Your task to perform on an android device: toggle show notifications on the lock screen Image 0: 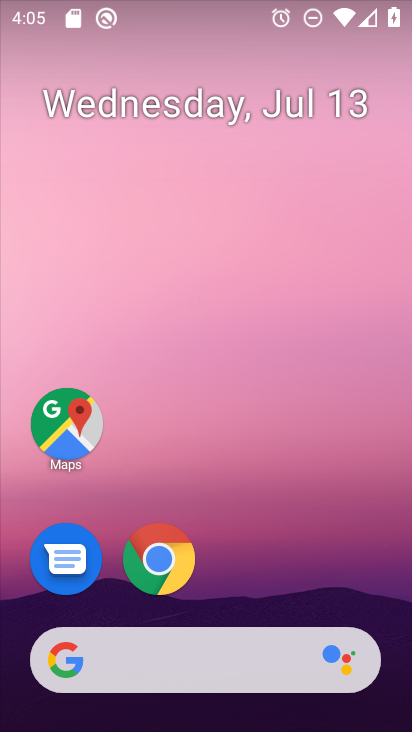
Step 0: drag from (338, 581) to (335, 158)
Your task to perform on an android device: toggle show notifications on the lock screen Image 1: 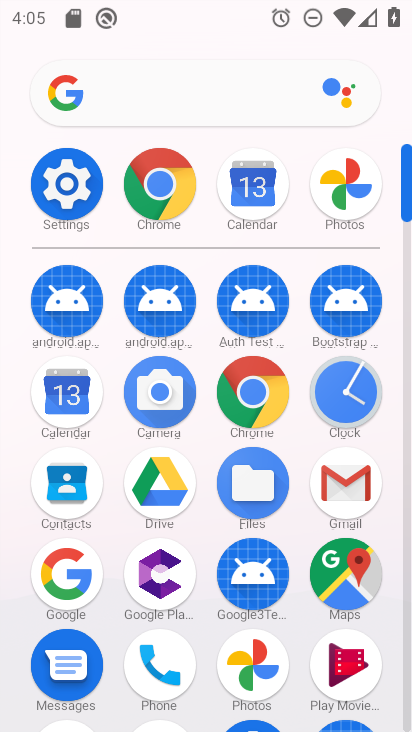
Step 1: click (74, 199)
Your task to perform on an android device: toggle show notifications on the lock screen Image 2: 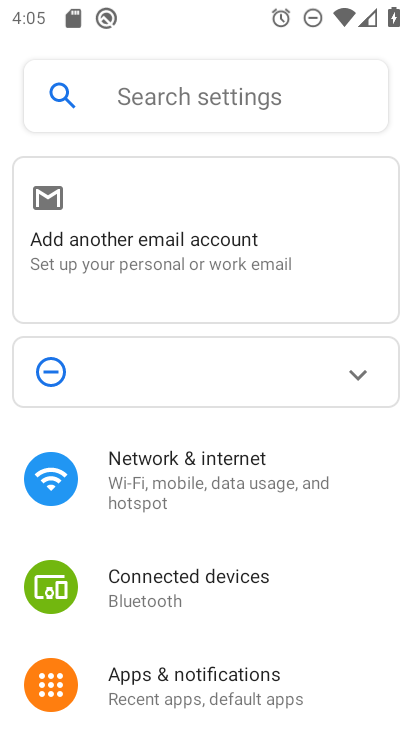
Step 2: drag from (363, 568) to (356, 457)
Your task to perform on an android device: toggle show notifications on the lock screen Image 3: 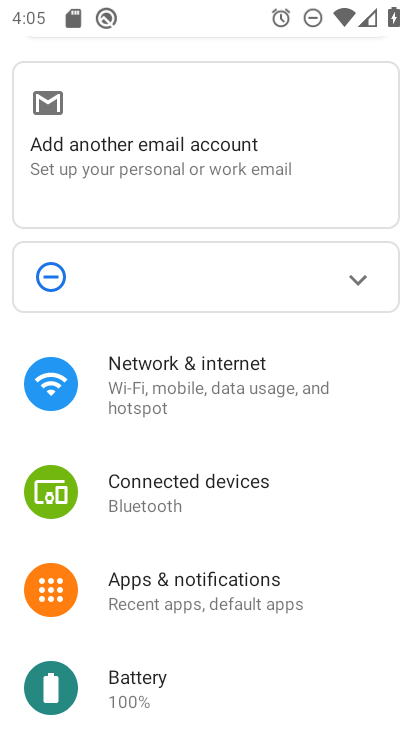
Step 3: drag from (354, 587) to (346, 429)
Your task to perform on an android device: toggle show notifications on the lock screen Image 4: 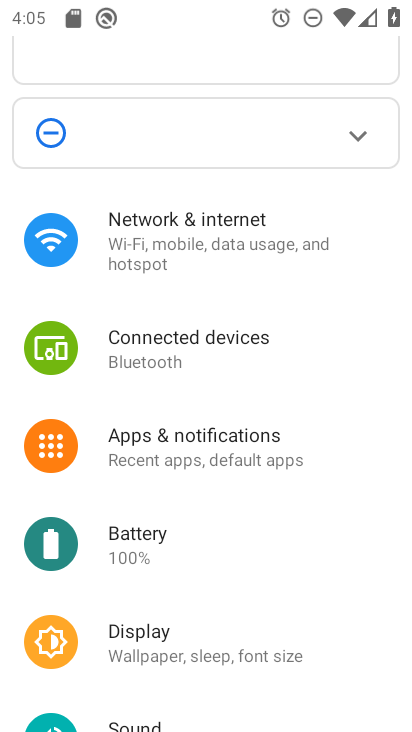
Step 4: drag from (341, 579) to (341, 440)
Your task to perform on an android device: toggle show notifications on the lock screen Image 5: 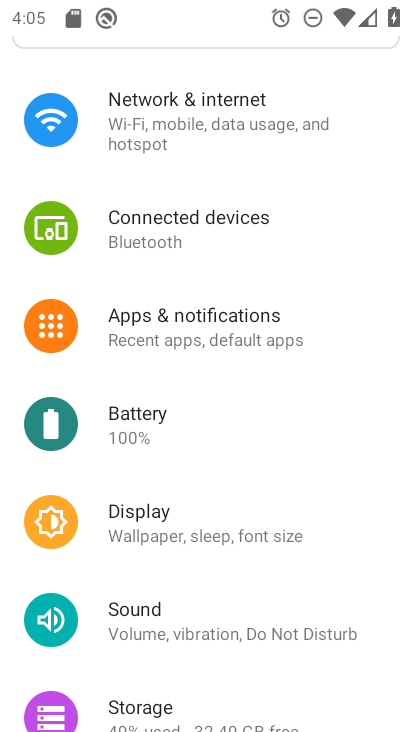
Step 5: drag from (332, 581) to (339, 439)
Your task to perform on an android device: toggle show notifications on the lock screen Image 6: 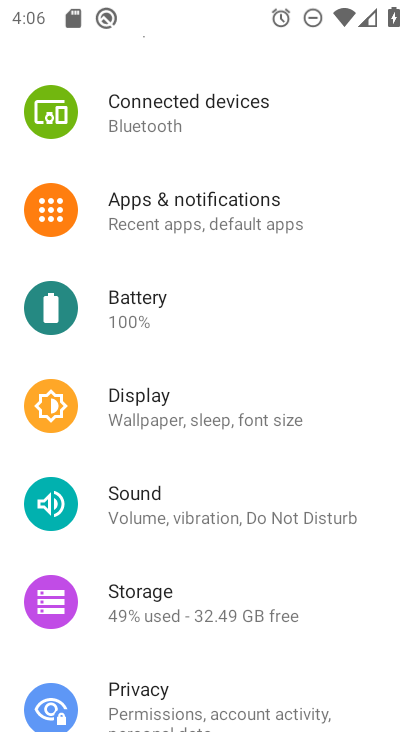
Step 6: drag from (341, 616) to (341, 454)
Your task to perform on an android device: toggle show notifications on the lock screen Image 7: 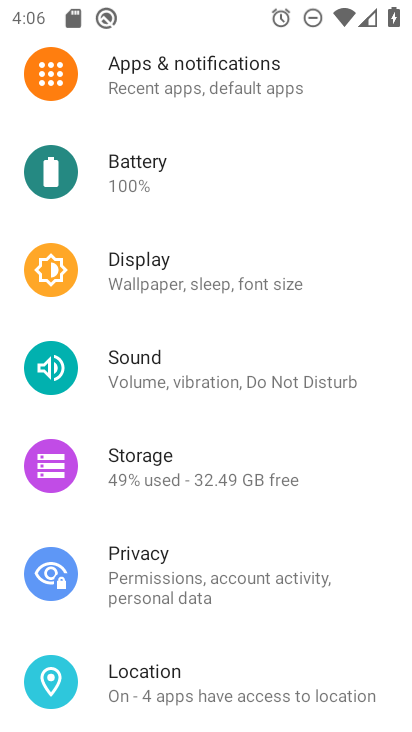
Step 7: drag from (363, 628) to (363, 522)
Your task to perform on an android device: toggle show notifications on the lock screen Image 8: 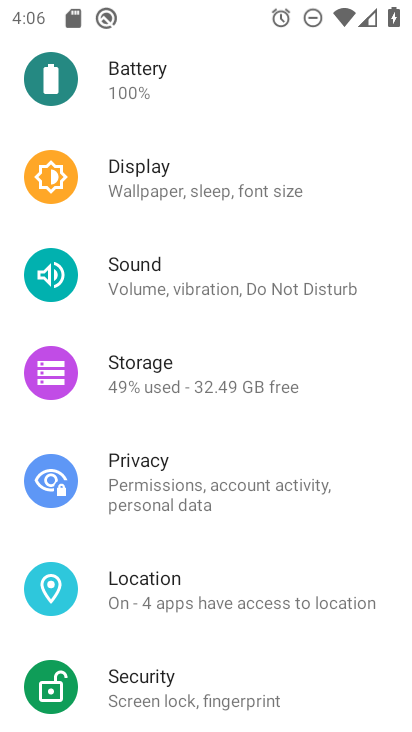
Step 8: drag from (338, 538) to (351, 438)
Your task to perform on an android device: toggle show notifications on the lock screen Image 9: 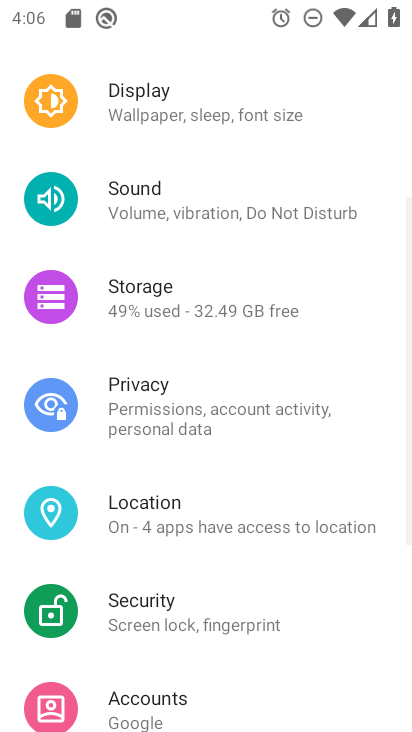
Step 9: drag from (359, 546) to (358, 410)
Your task to perform on an android device: toggle show notifications on the lock screen Image 10: 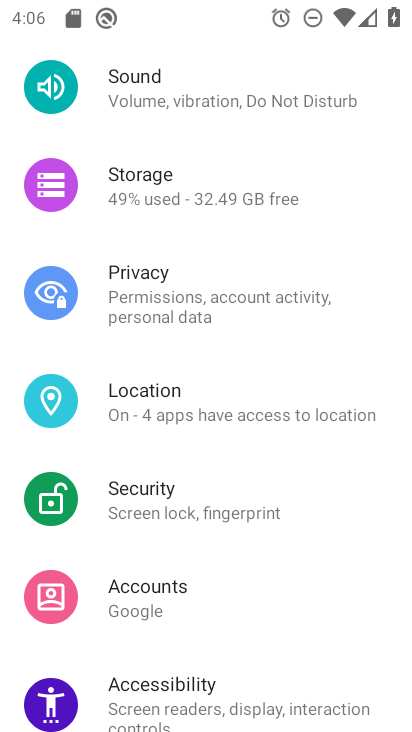
Step 10: drag from (350, 532) to (350, 407)
Your task to perform on an android device: toggle show notifications on the lock screen Image 11: 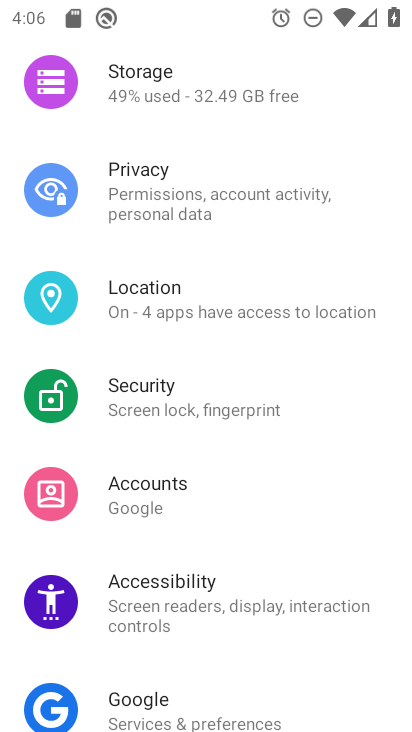
Step 11: drag from (349, 523) to (344, 332)
Your task to perform on an android device: toggle show notifications on the lock screen Image 12: 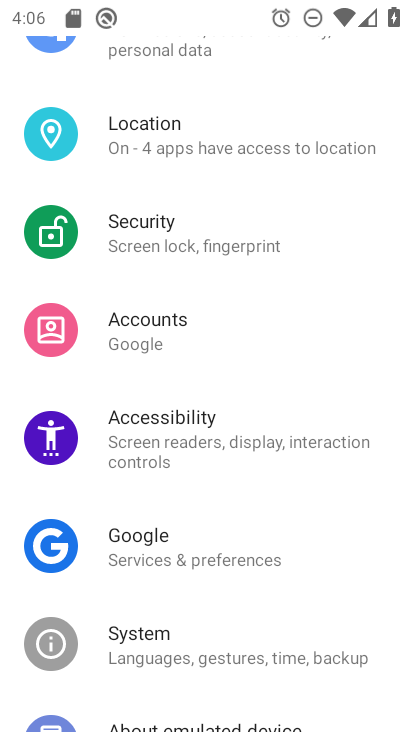
Step 12: drag from (334, 238) to (336, 324)
Your task to perform on an android device: toggle show notifications on the lock screen Image 13: 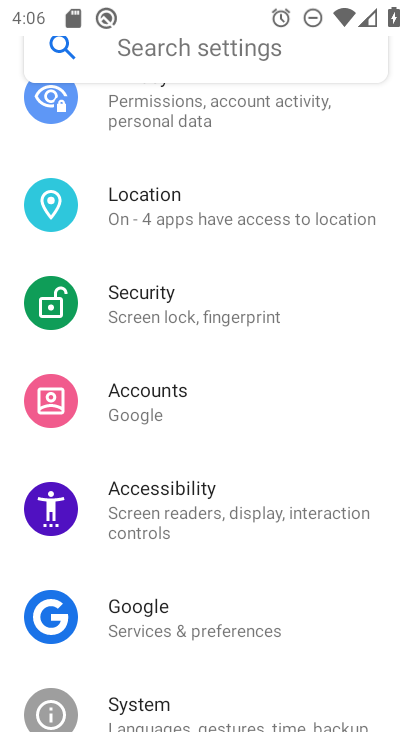
Step 13: drag from (340, 266) to (340, 354)
Your task to perform on an android device: toggle show notifications on the lock screen Image 14: 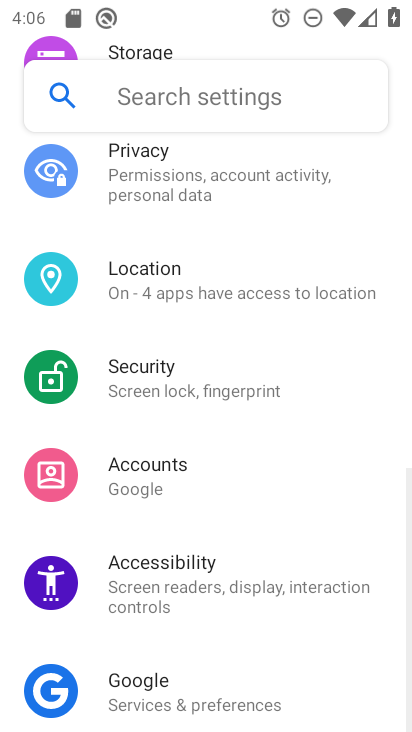
Step 14: drag from (329, 261) to (331, 355)
Your task to perform on an android device: toggle show notifications on the lock screen Image 15: 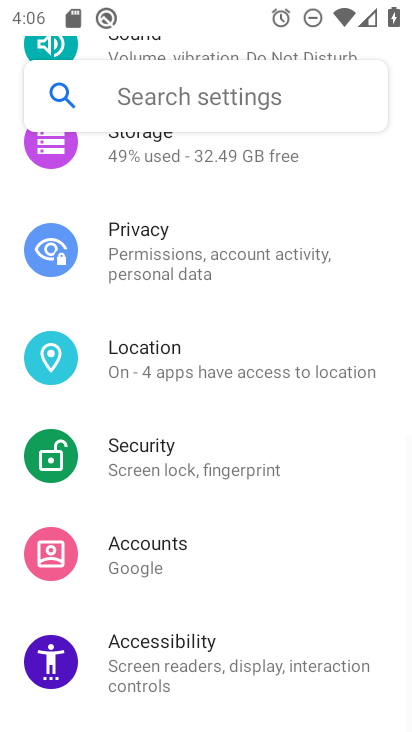
Step 15: drag from (346, 256) to (347, 362)
Your task to perform on an android device: toggle show notifications on the lock screen Image 16: 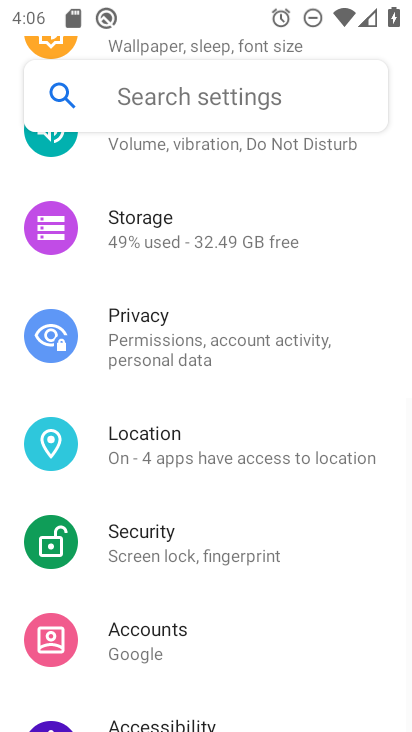
Step 16: drag from (349, 283) to (349, 376)
Your task to perform on an android device: toggle show notifications on the lock screen Image 17: 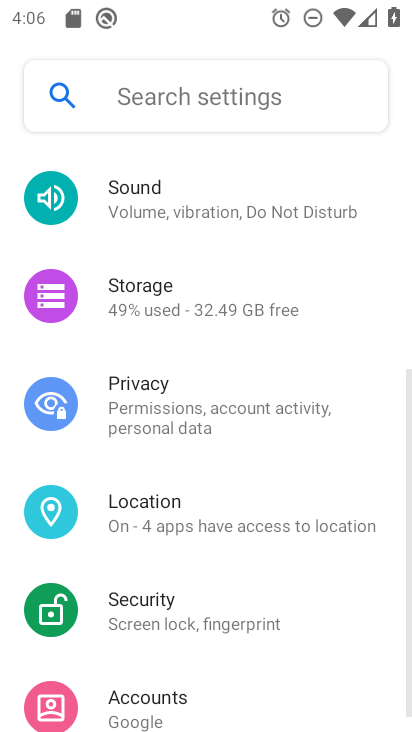
Step 17: drag from (349, 305) to (349, 400)
Your task to perform on an android device: toggle show notifications on the lock screen Image 18: 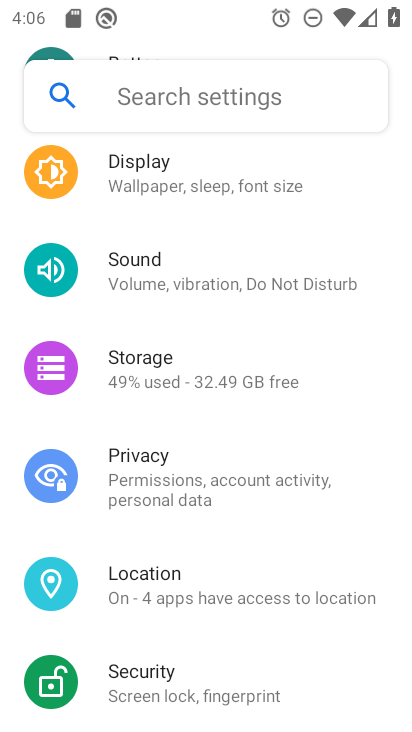
Step 18: drag from (351, 321) to (352, 398)
Your task to perform on an android device: toggle show notifications on the lock screen Image 19: 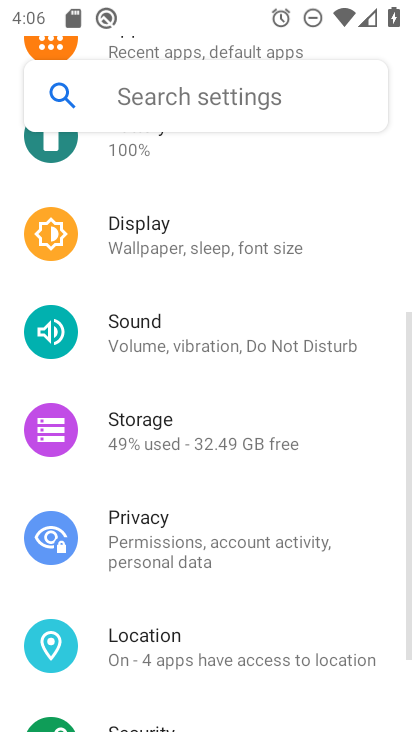
Step 19: drag from (358, 301) to (358, 424)
Your task to perform on an android device: toggle show notifications on the lock screen Image 20: 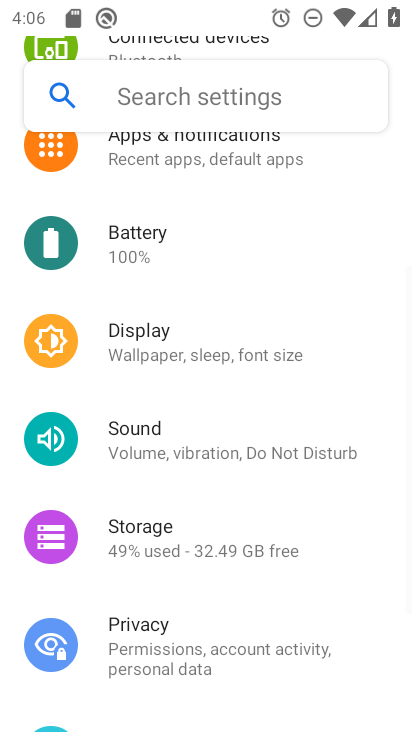
Step 20: drag from (346, 302) to (356, 416)
Your task to perform on an android device: toggle show notifications on the lock screen Image 21: 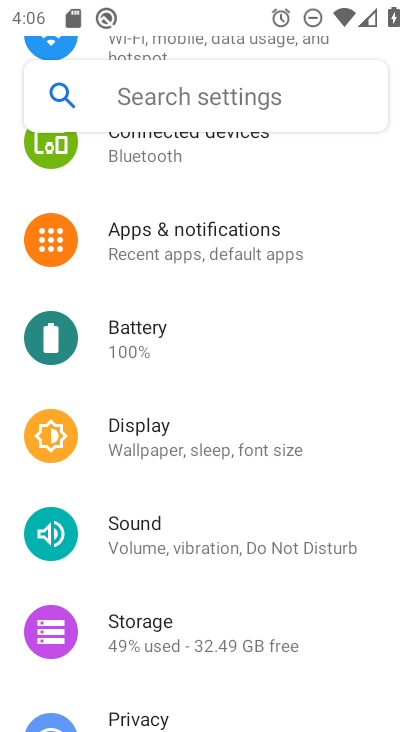
Step 21: click (296, 268)
Your task to perform on an android device: toggle show notifications on the lock screen Image 22: 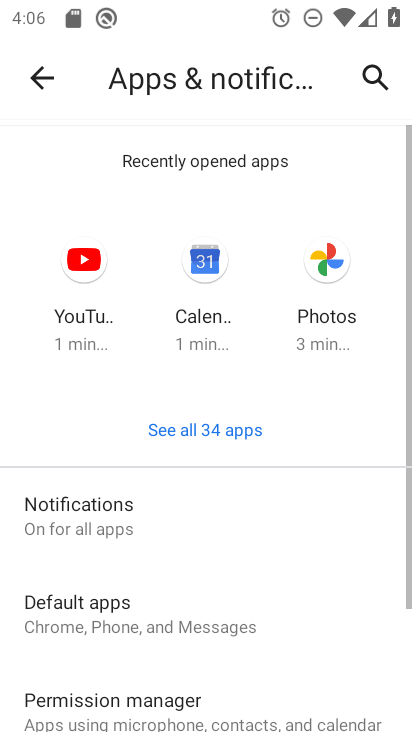
Step 22: drag from (292, 433) to (289, 250)
Your task to perform on an android device: toggle show notifications on the lock screen Image 23: 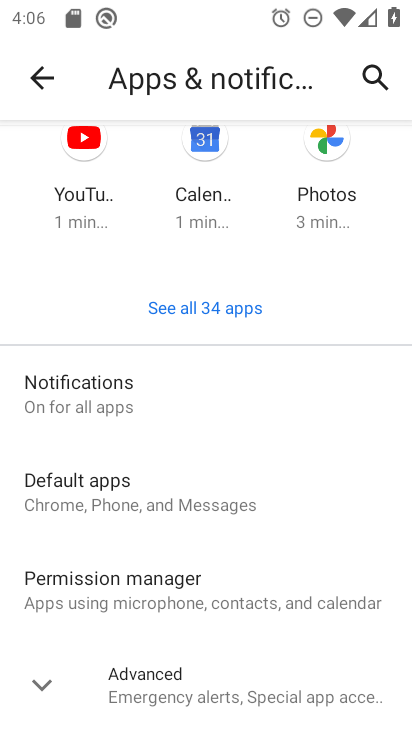
Step 23: click (268, 398)
Your task to perform on an android device: toggle show notifications on the lock screen Image 24: 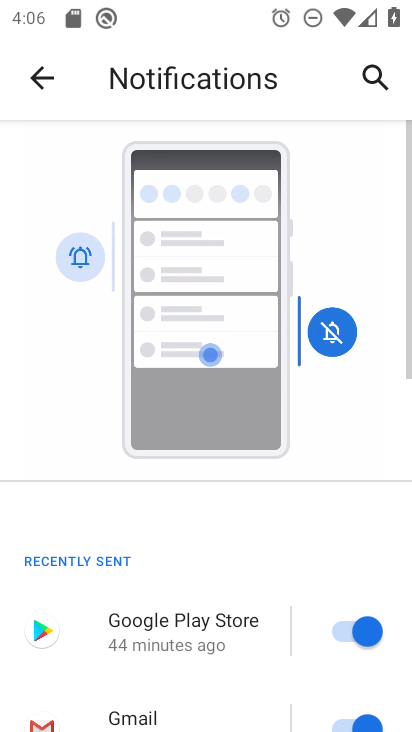
Step 24: drag from (271, 476) to (277, 294)
Your task to perform on an android device: toggle show notifications on the lock screen Image 25: 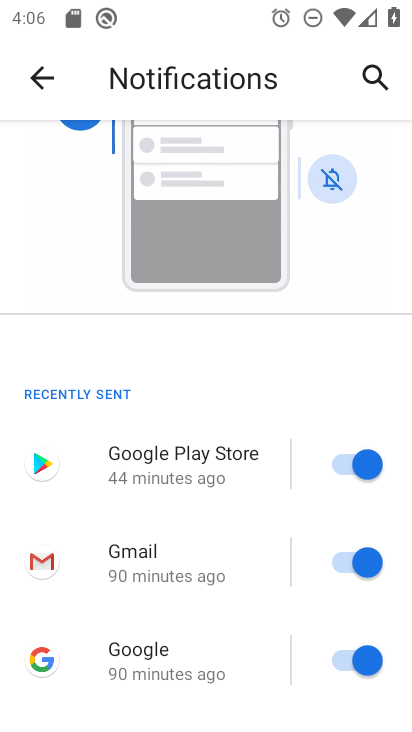
Step 25: drag from (262, 507) to (262, 391)
Your task to perform on an android device: toggle show notifications on the lock screen Image 26: 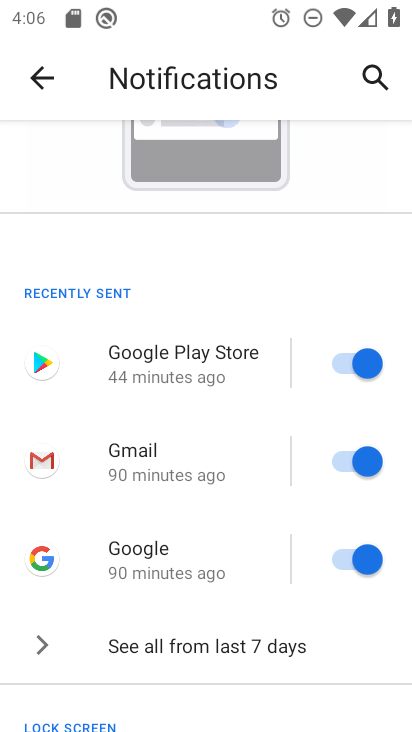
Step 26: drag from (260, 501) to (243, 333)
Your task to perform on an android device: toggle show notifications on the lock screen Image 27: 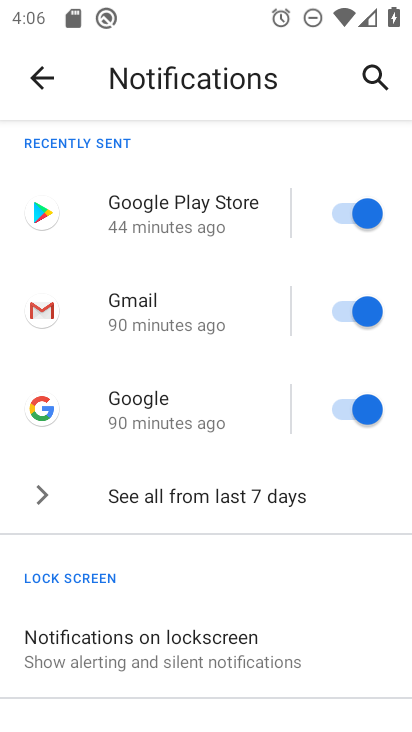
Step 27: drag from (248, 535) to (248, 352)
Your task to perform on an android device: toggle show notifications on the lock screen Image 28: 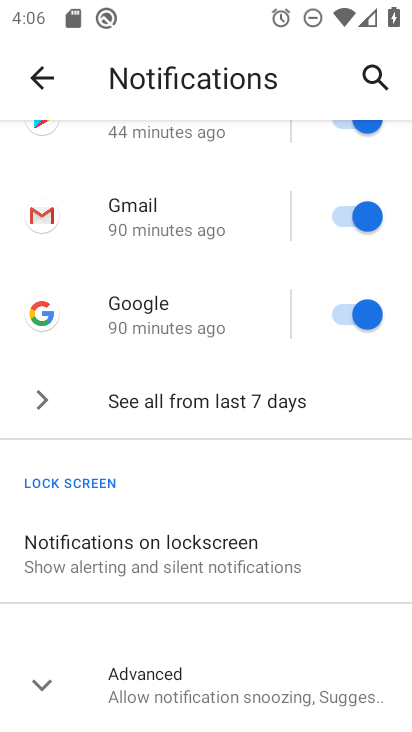
Step 28: click (254, 545)
Your task to perform on an android device: toggle show notifications on the lock screen Image 29: 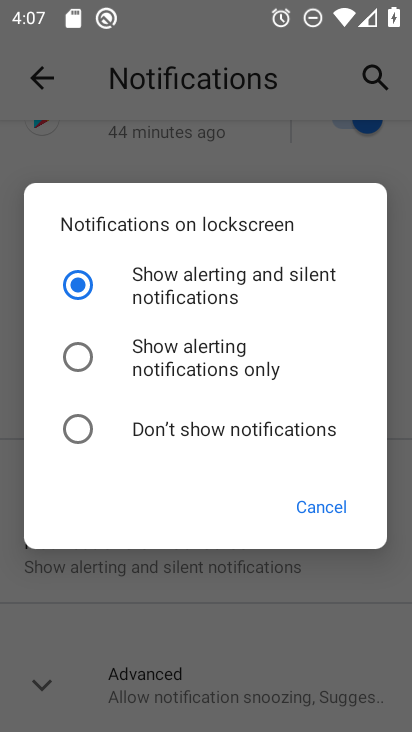
Step 29: click (174, 367)
Your task to perform on an android device: toggle show notifications on the lock screen Image 30: 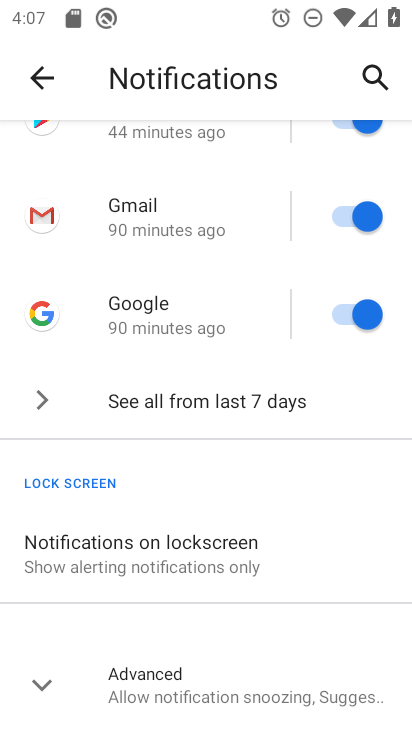
Step 30: task complete